Your task to perform on an android device: check storage Image 0: 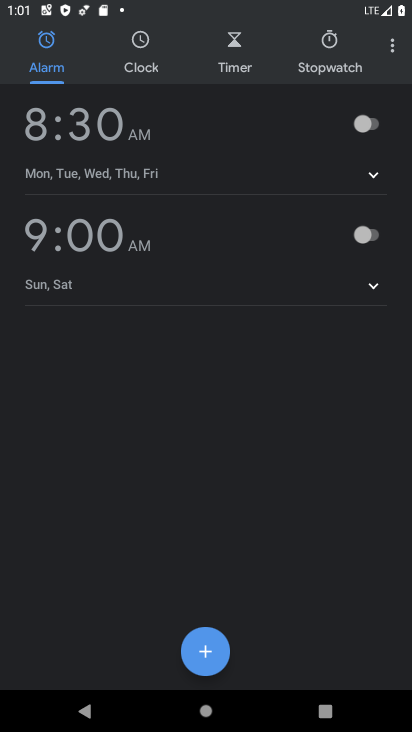
Step 0: press back button
Your task to perform on an android device: check storage Image 1: 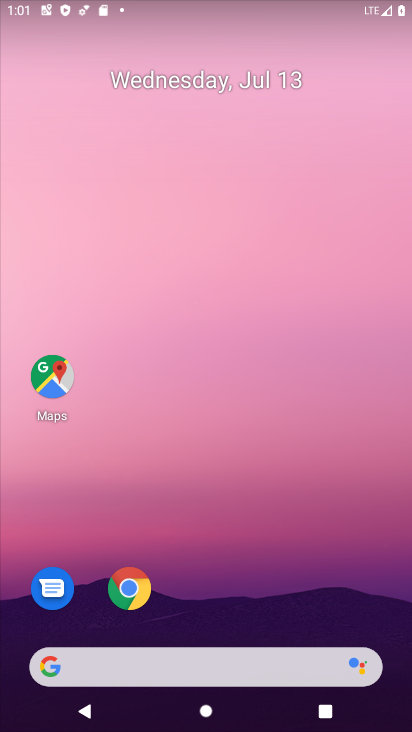
Step 1: drag from (395, 638) to (340, 23)
Your task to perform on an android device: check storage Image 2: 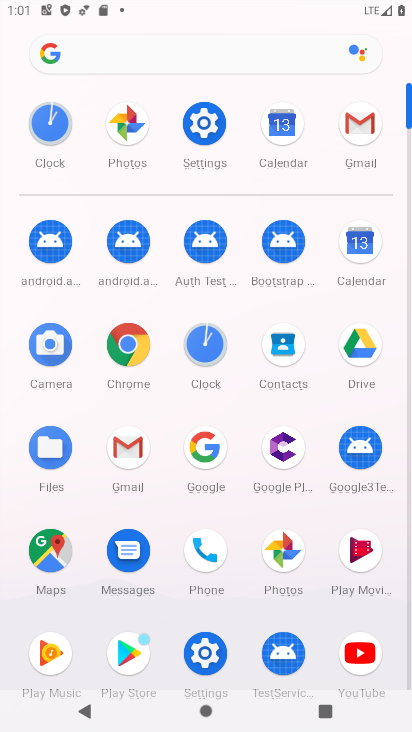
Step 2: click (209, 132)
Your task to perform on an android device: check storage Image 3: 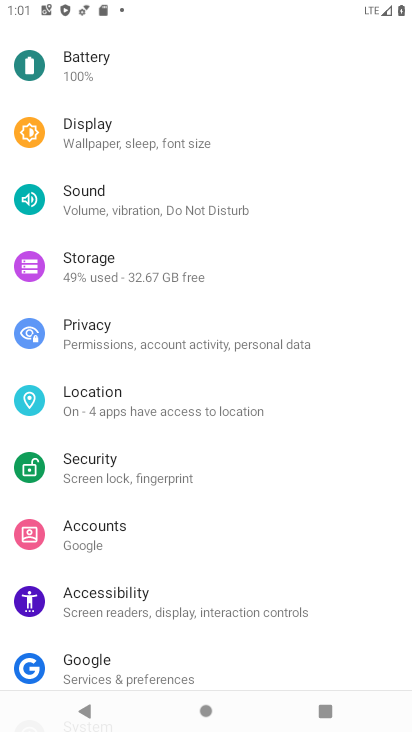
Step 3: click (88, 258)
Your task to perform on an android device: check storage Image 4: 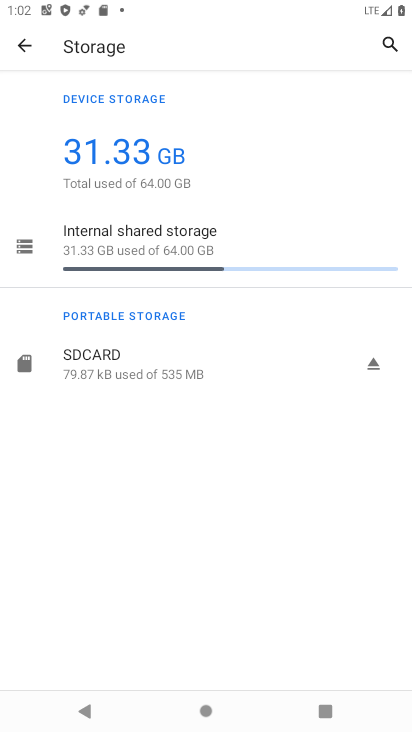
Step 4: task complete